Your task to perform on an android device: Clear all items from cart on bestbuy.com. Image 0: 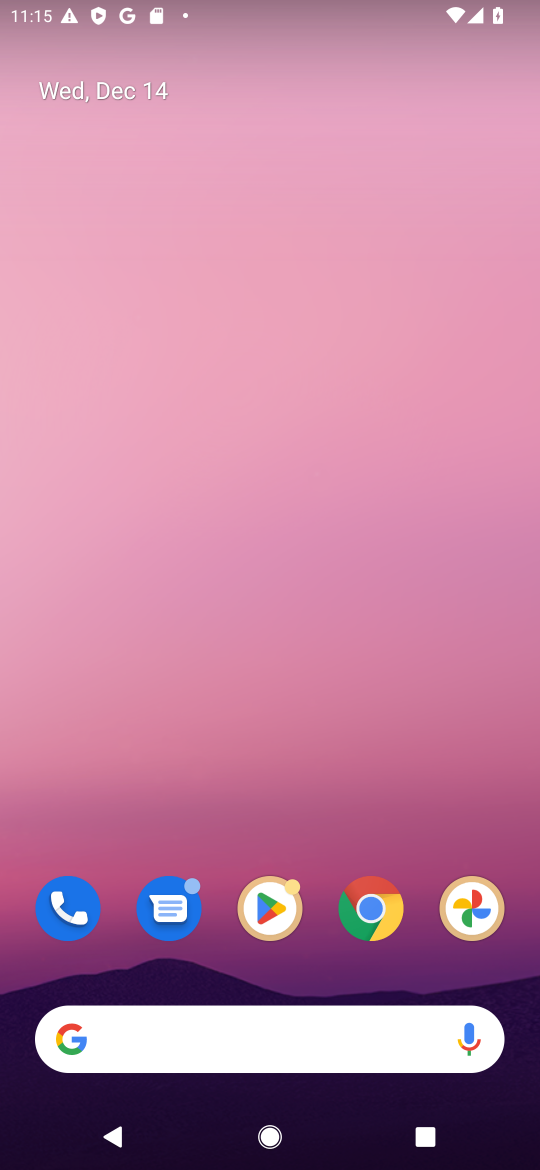
Step 0: click (364, 898)
Your task to perform on an android device: Clear all items from cart on bestbuy.com. Image 1: 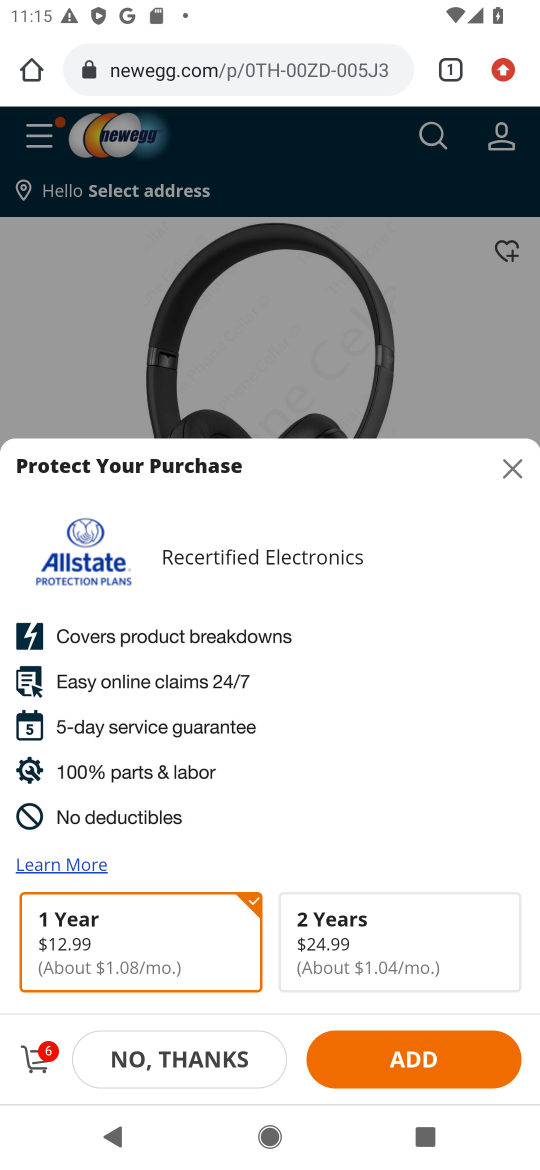
Step 1: click (276, 66)
Your task to perform on an android device: Clear all items from cart on bestbuy.com. Image 2: 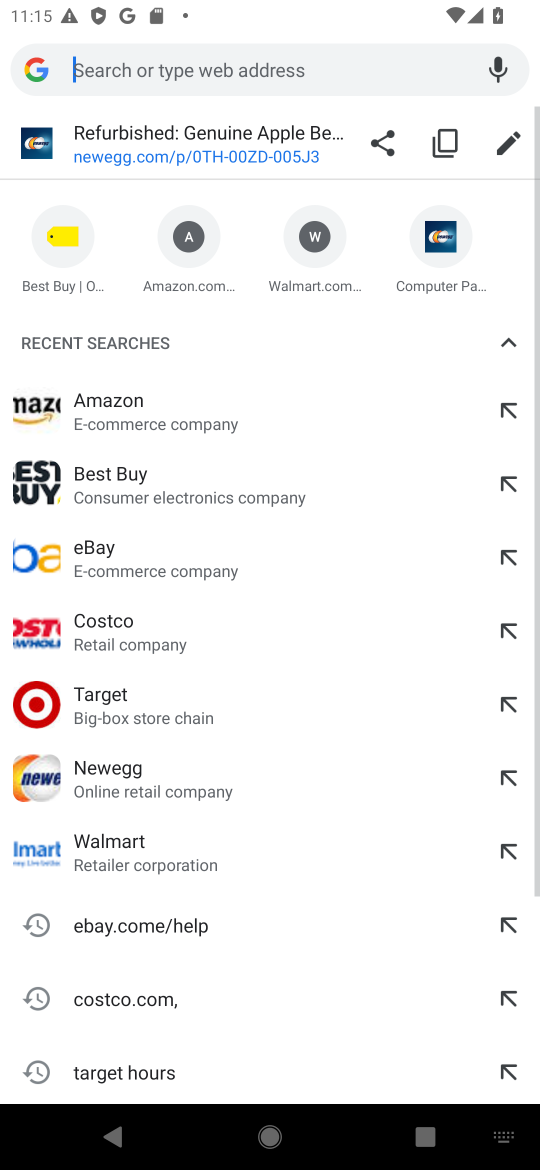
Step 2: click (160, 541)
Your task to perform on an android device: Clear all items from cart on bestbuy.com. Image 3: 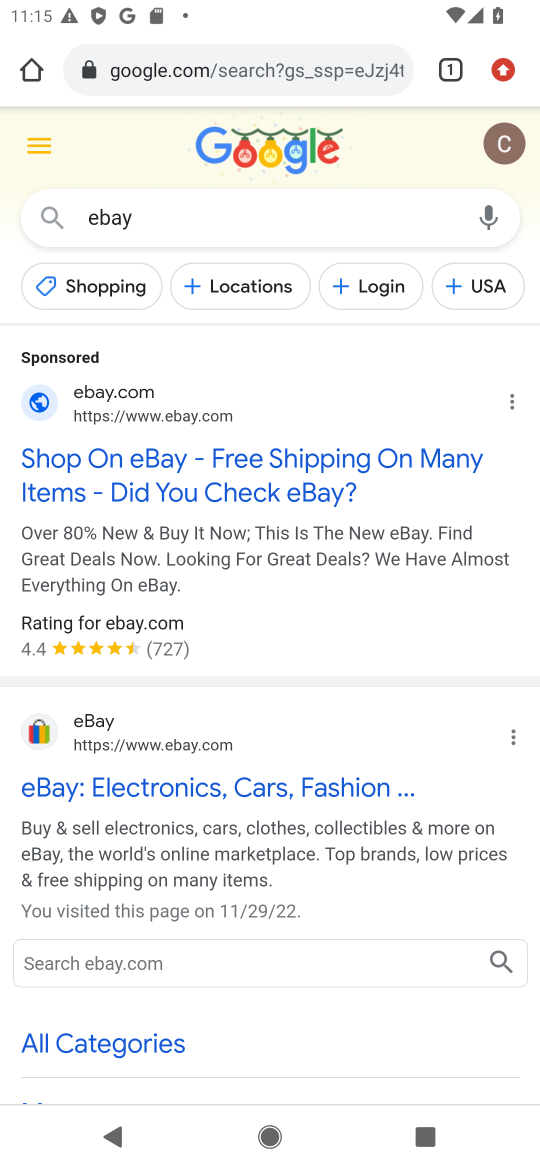
Step 3: click (155, 463)
Your task to perform on an android device: Clear all items from cart on bestbuy.com. Image 4: 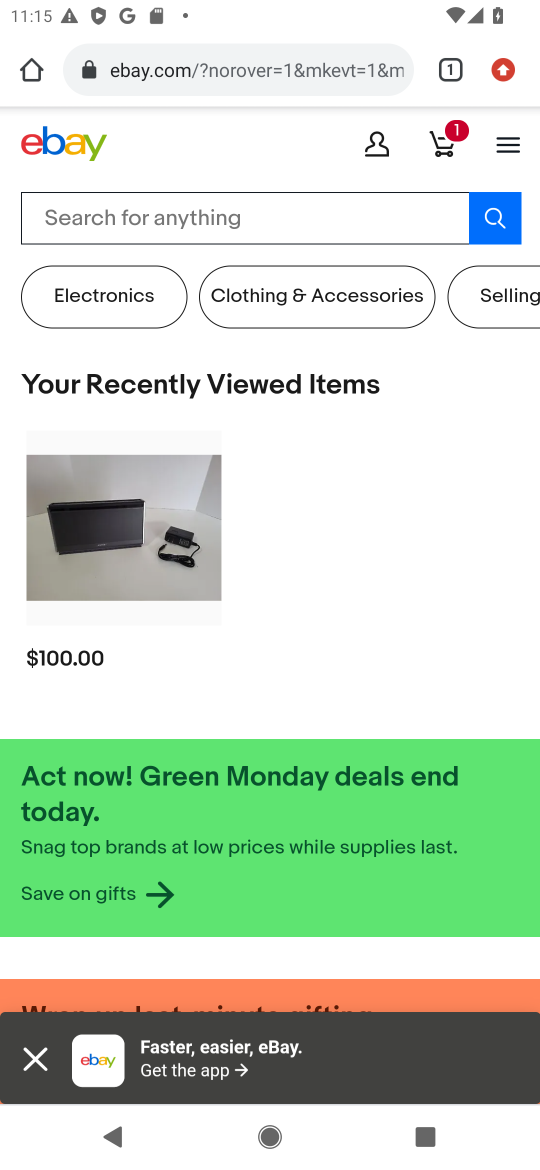
Step 4: click (139, 84)
Your task to perform on an android device: Clear all items from cart on bestbuy.com. Image 5: 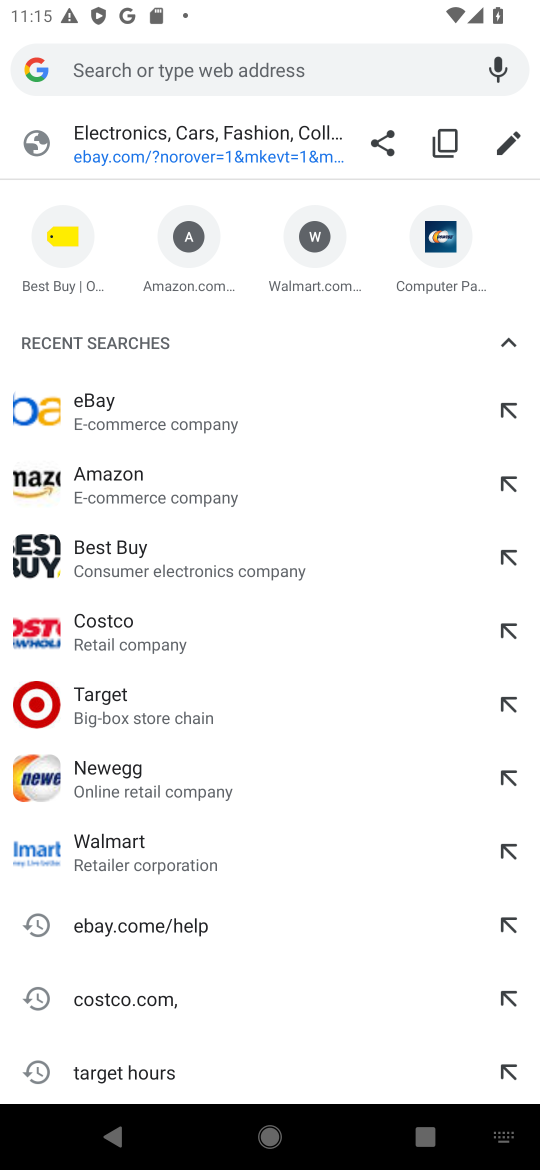
Step 5: click (143, 555)
Your task to perform on an android device: Clear all items from cart on bestbuy.com. Image 6: 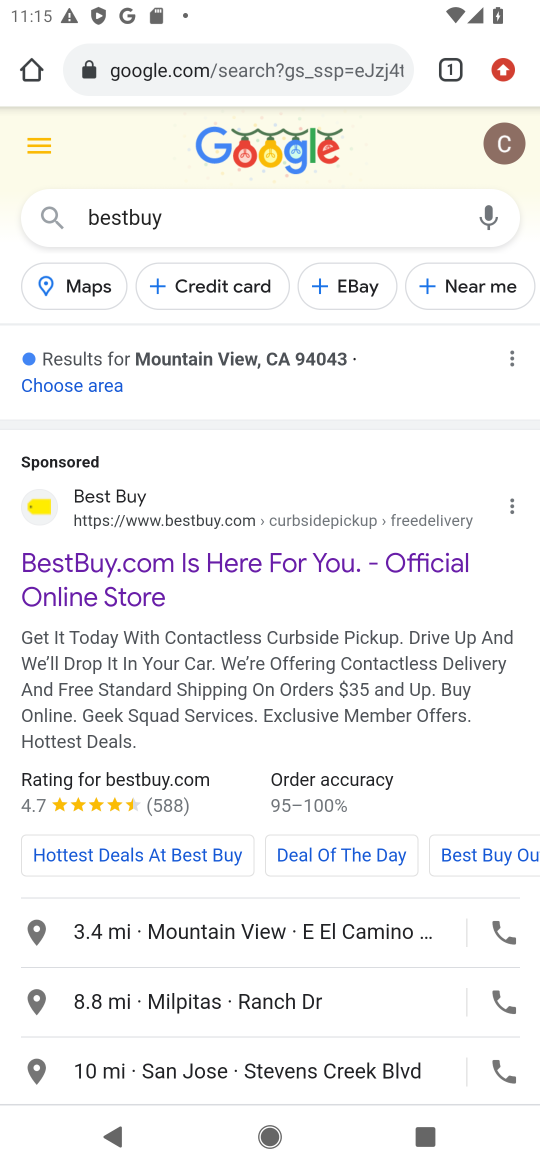
Step 6: click (143, 555)
Your task to perform on an android device: Clear all items from cart on bestbuy.com. Image 7: 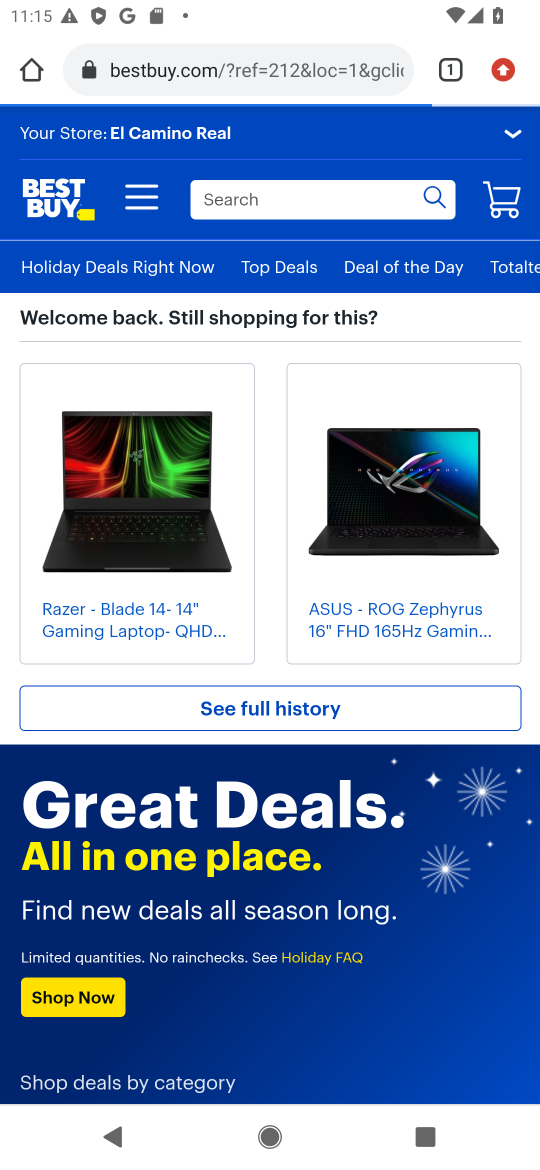
Step 7: click (243, 193)
Your task to perform on an android device: Clear all items from cart on bestbuy.com. Image 8: 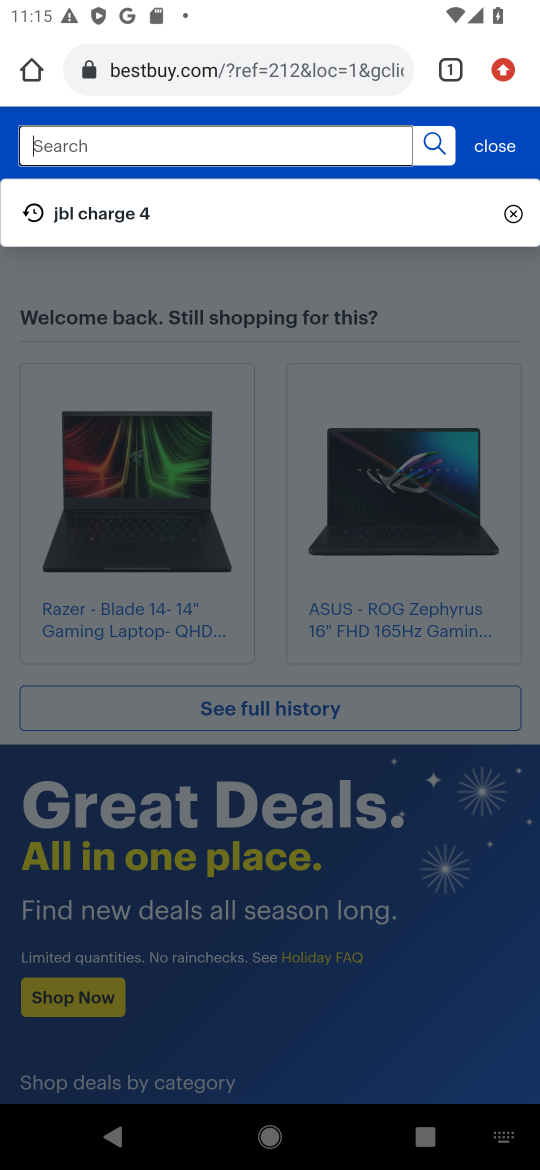
Step 8: click (499, 134)
Your task to perform on an android device: Clear all items from cart on bestbuy.com. Image 9: 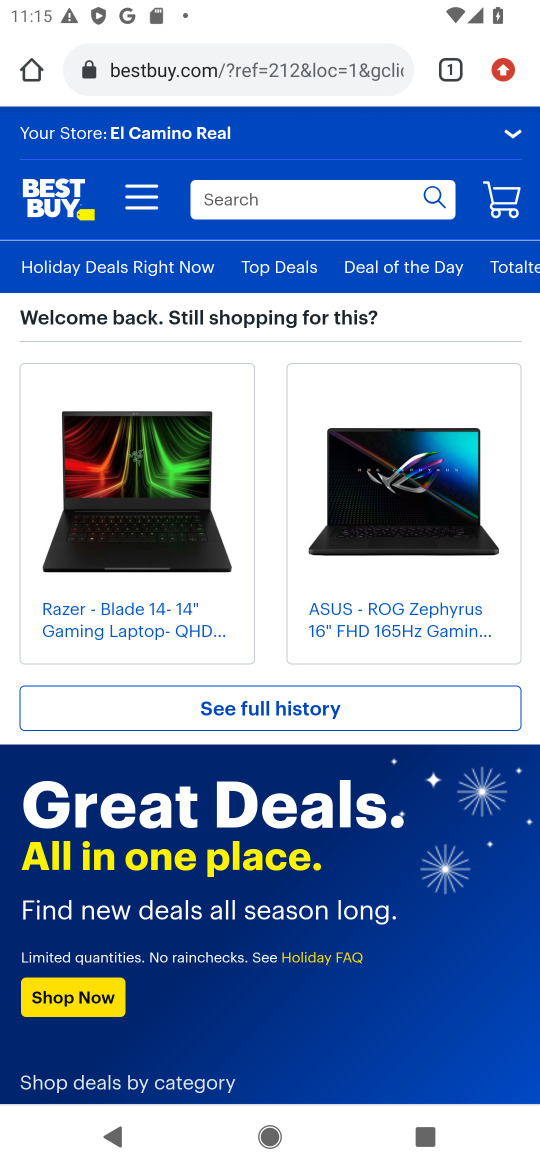
Step 9: click (503, 202)
Your task to perform on an android device: Clear all items from cart on bestbuy.com. Image 10: 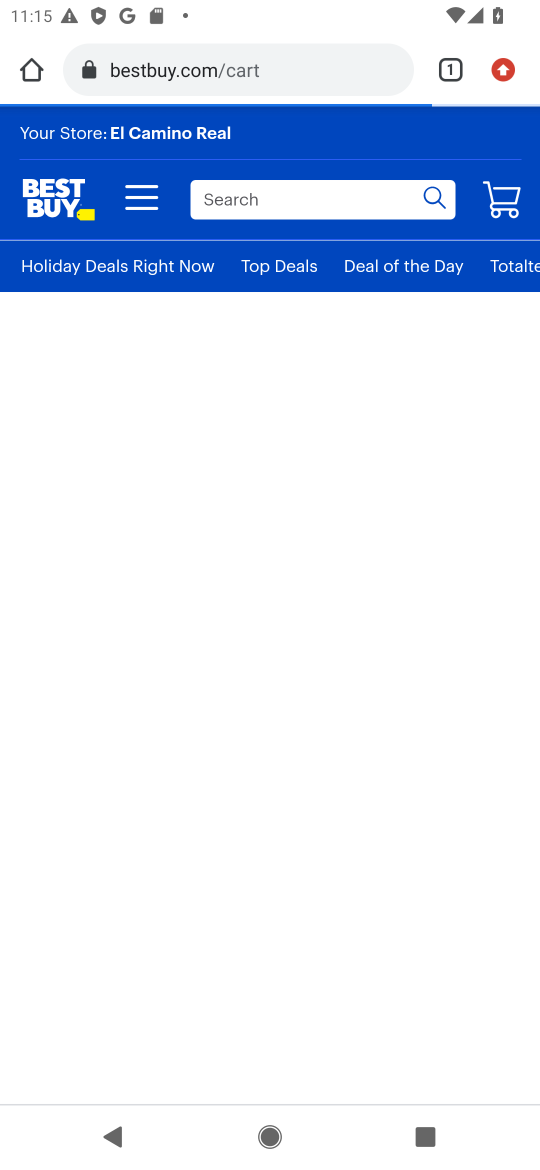
Step 10: task complete